Your task to perform on an android device: change the clock display to digital Image 0: 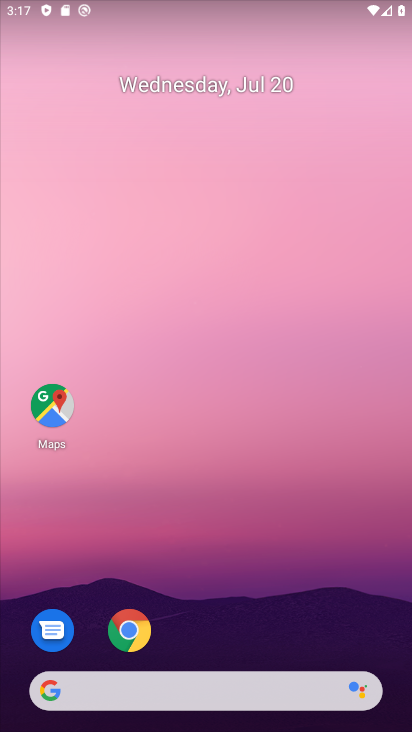
Step 0: press home button
Your task to perform on an android device: change the clock display to digital Image 1: 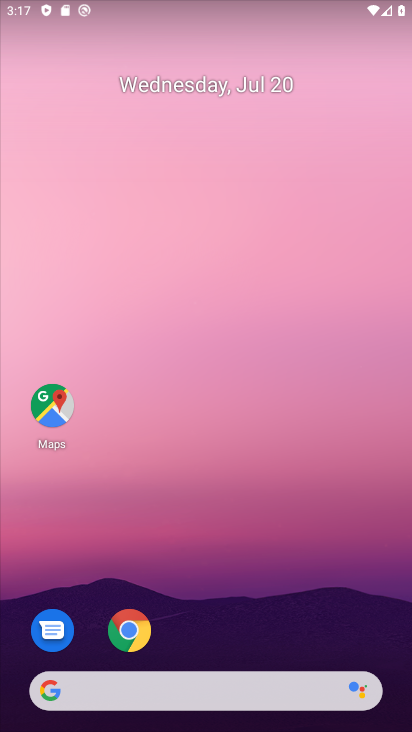
Step 1: drag from (270, 623) to (98, 0)
Your task to perform on an android device: change the clock display to digital Image 2: 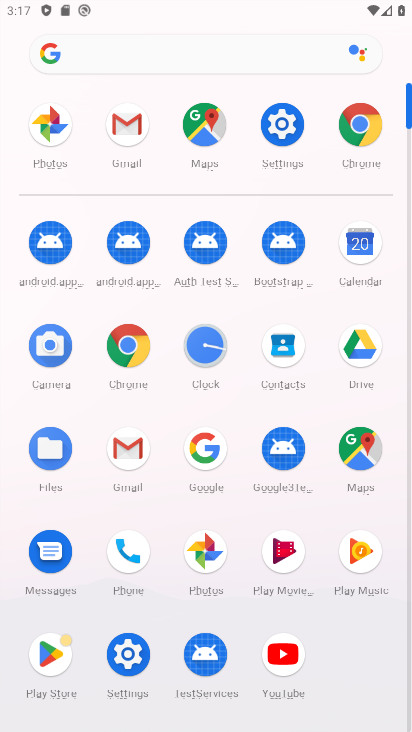
Step 2: click (192, 358)
Your task to perform on an android device: change the clock display to digital Image 3: 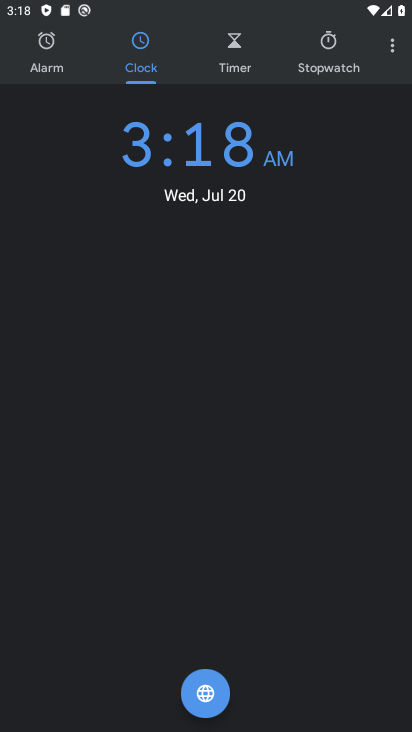
Step 3: click (398, 37)
Your task to perform on an android device: change the clock display to digital Image 4: 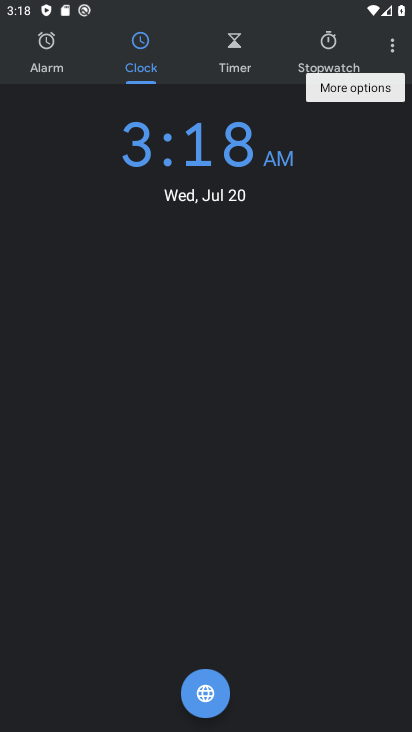
Step 4: click (396, 46)
Your task to perform on an android device: change the clock display to digital Image 5: 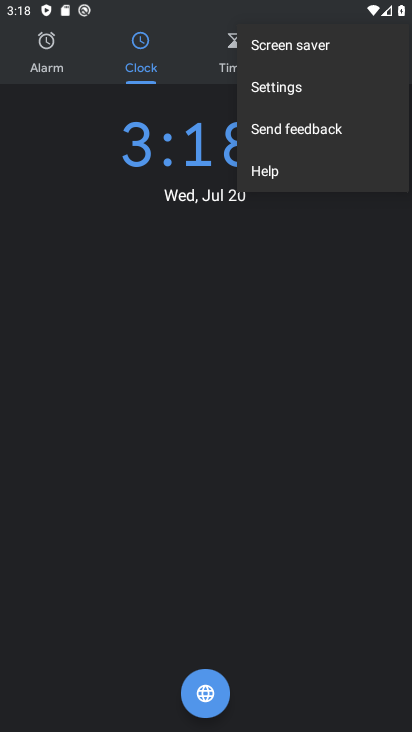
Step 5: click (292, 93)
Your task to perform on an android device: change the clock display to digital Image 6: 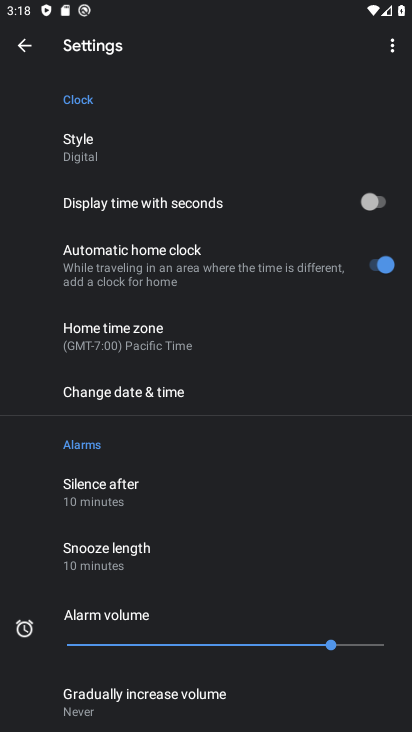
Step 6: click (74, 144)
Your task to perform on an android device: change the clock display to digital Image 7: 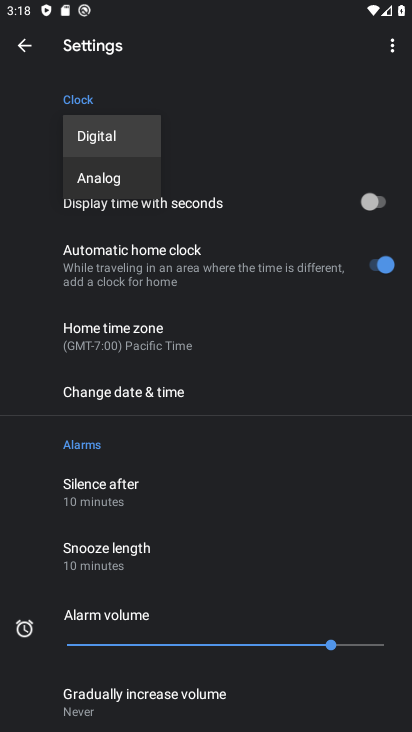
Step 7: task complete